Your task to perform on an android device: Open Youtube and go to the subscriptions tab Image 0: 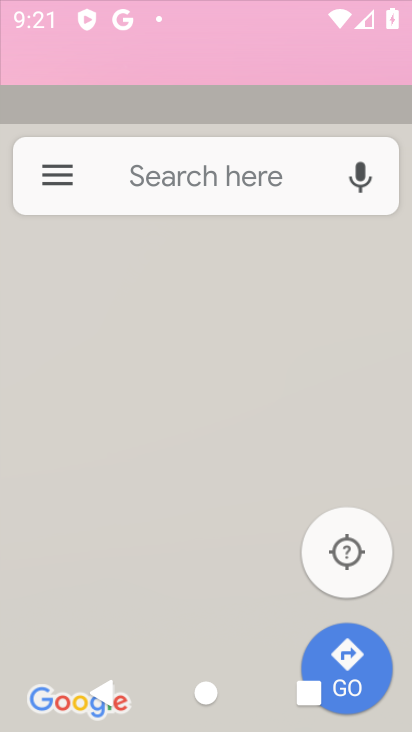
Step 0: drag from (347, 420) to (229, 13)
Your task to perform on an android device: Open Youtube and go to the subscriptions tab Image 1: 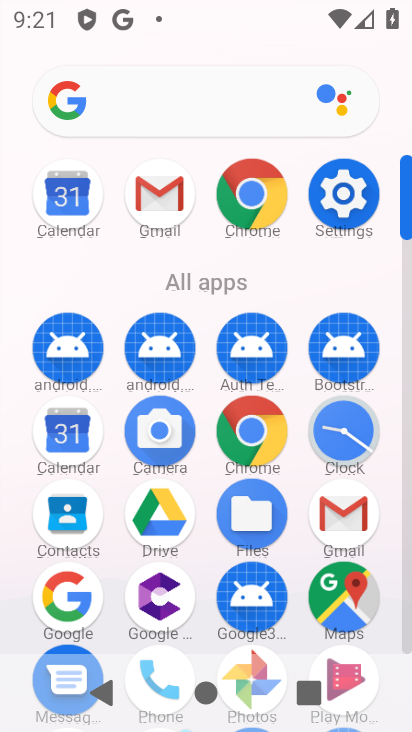
Step 1: drag from (16, 598) to (31, 226)
Your task to perform on an android device: Open Youtube and go to the subscriptions tab Image 2: 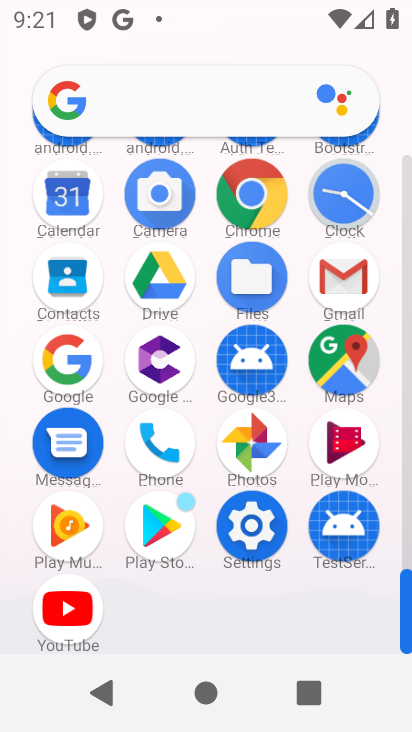
Step 2: click (69, 608)
Your task to perform on an android device: Open Youtube and go to the subscriptions tab Image 3: 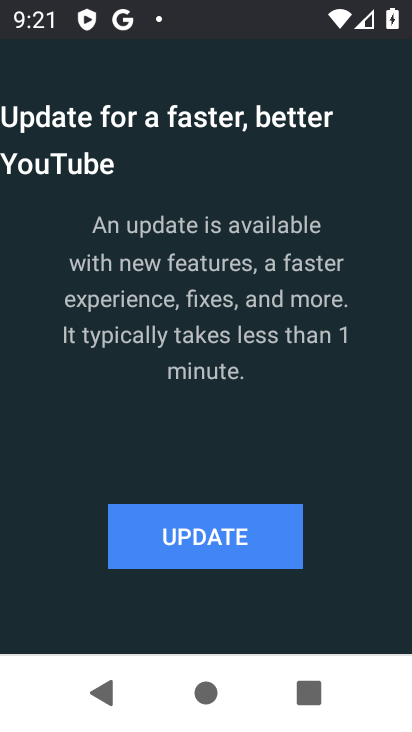
Step 3: click (221, 535)
Your task to perform on an android device: Open Youtube and go to the subscriptions tab Image 4: 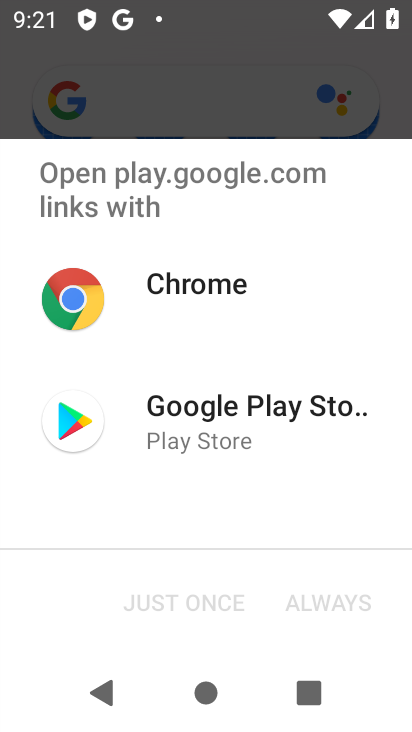
Step 4: click (199, 397)
Your task to perform on an android device: Open Youtube and go to the subscriptions tab Image 5: 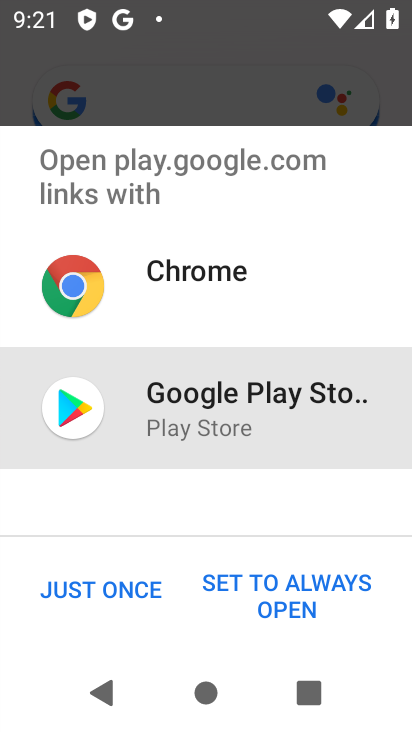
Step 5: click (94, 580)
Your task to perform on an android device: Open Youtube and go to the subscriptions tab Image 6: 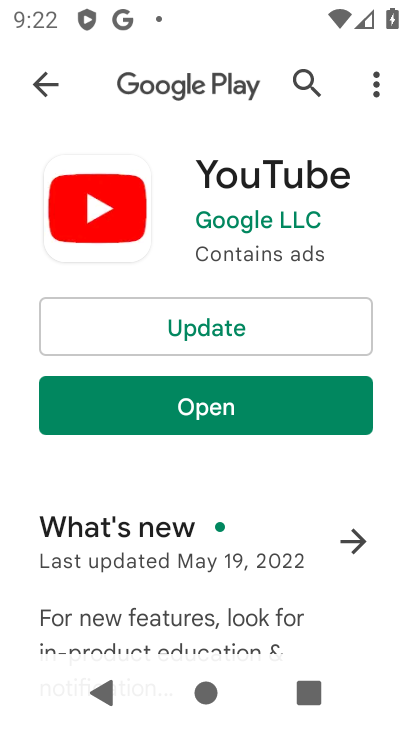
Step 6: click (203, 327)
Your task to perform on an android device: Open Youtube and go to the subscriptions tab Image 7: 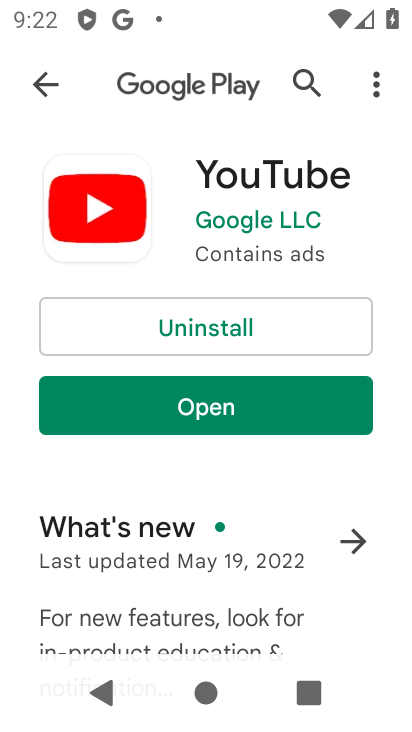
Step 7: click (236, 402)
Your task to perform on an android device: Open Youtube and go to the subscriptions tab Image 8: 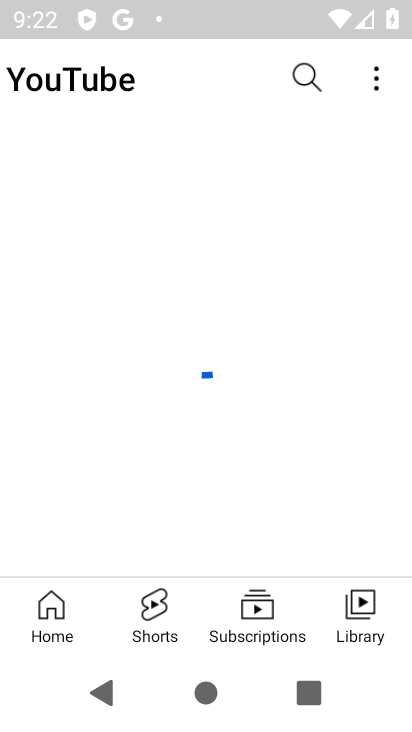
Step 8: click (240, 613)
Your task to perform on an android device: Open Youtube and go to the subscriptions tab Image 9: 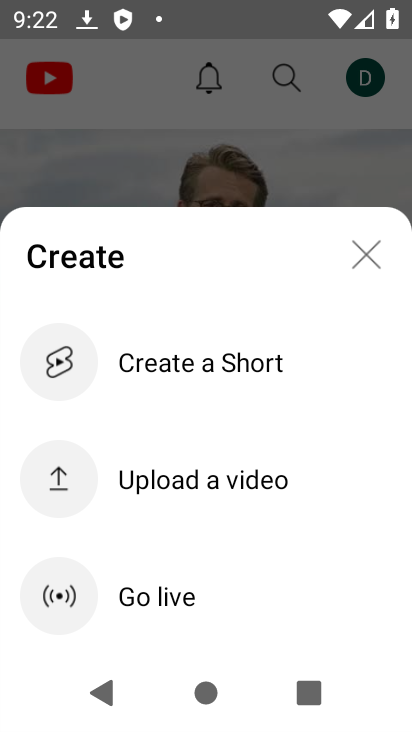
Step 9: click (374, 255)
Your task to perform on an android device: Open Youtube and go to the subscriptions tab Image 10: 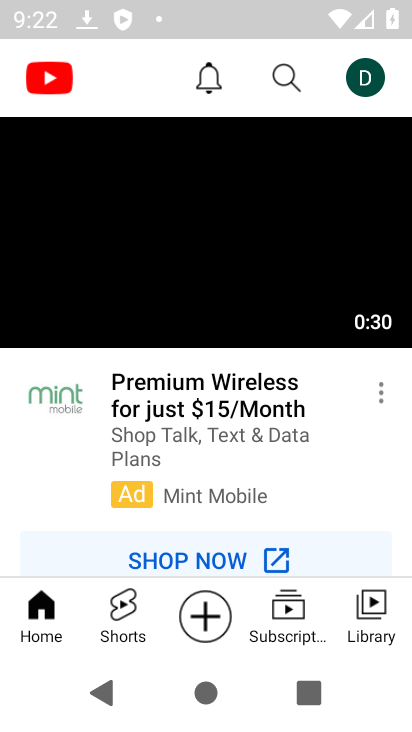
Step 10: drag from (327, 517) to (315, 163)
Your task to perform on an android device: Open Youtube and go to the subscriptions tab Image 11: 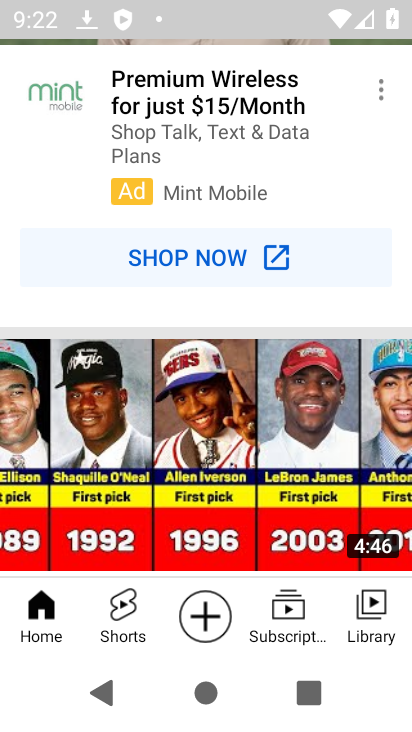
Step 11: click (285, 621)
Your task to perform on an android device: Open Youtube and go to the subscriptions tab Image 12: 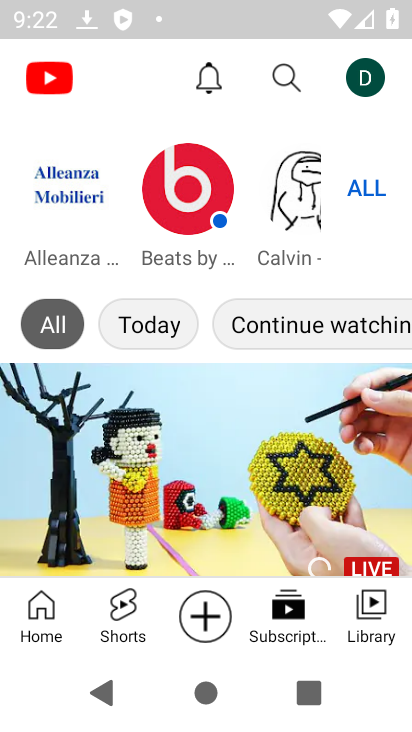
Step 12: task complete